Your task to perform on an android device: Go to Google Image 0: 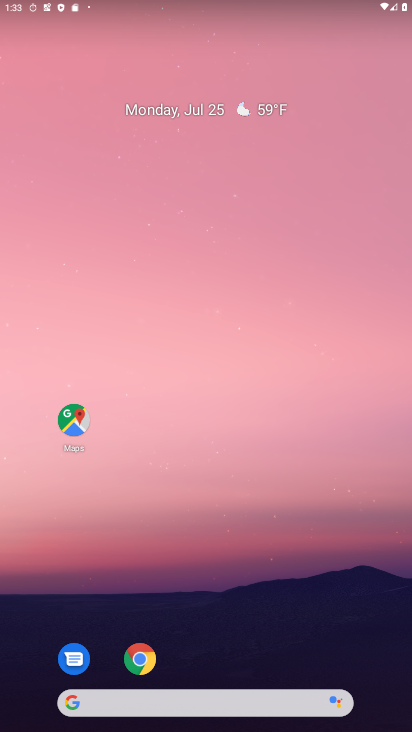
Step 0: drag from (242, 654) to (262, 6)
Your task to perform on an android device: Go to Google Image 1: 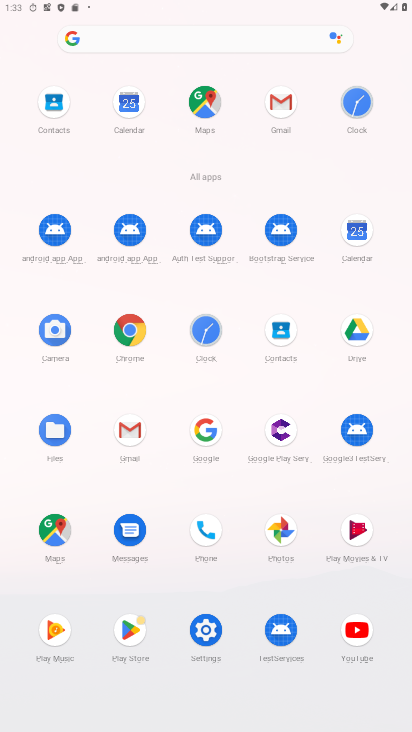
Step 1: click (204, 432)
Your task to perform on an android device: Go to Google Image 2: 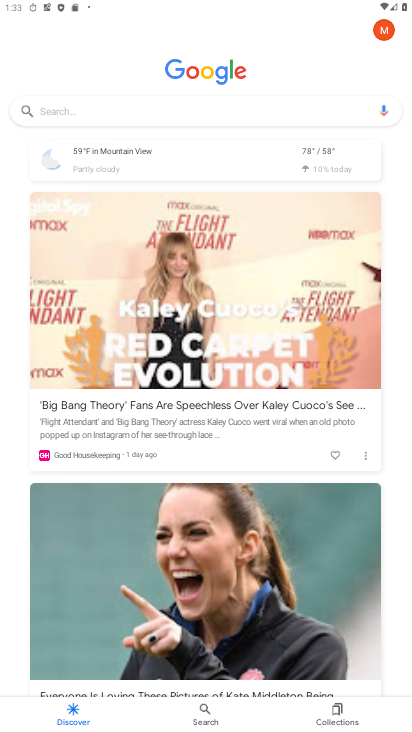
Step 2: task complete